Your task to perform on an android device: see tabs open on other devices in the chrome app Image 0: 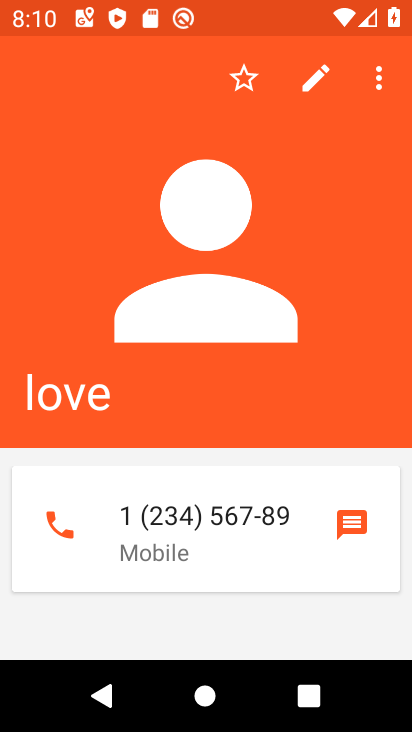
Step 0: press home button
Your task to perform on an android device: see tabs open on other devices in the chrome app Image 1: 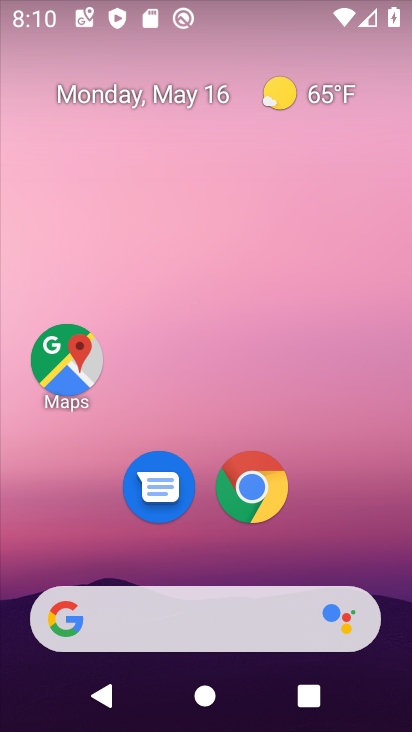
Step 1: drag from (330, 534) to (320, 89)
Your task to perform on an android device: see tabs open on other devices in the chrome app Image 2: 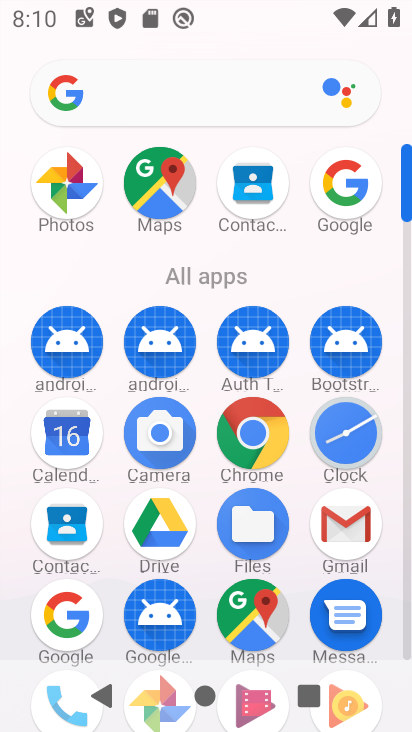
Step 2: click (256, 442)
Your task to perform on an android device: see tabs open on other devices in the chrome app Image 3: 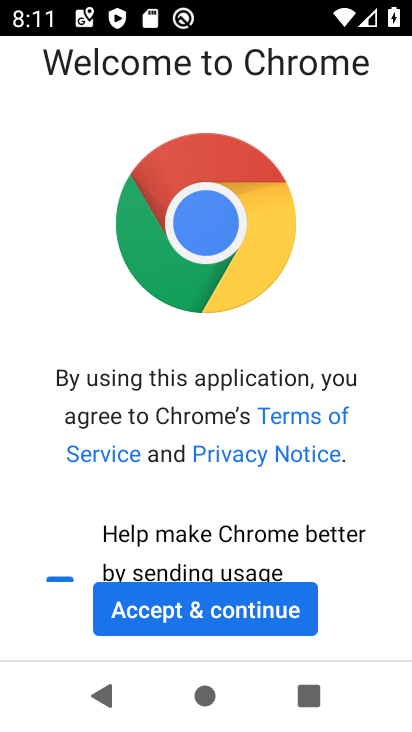
Step 3: click (190, 608)
Your task to perform on an android device: see tabs open on other devices in the chrome app Image 4: 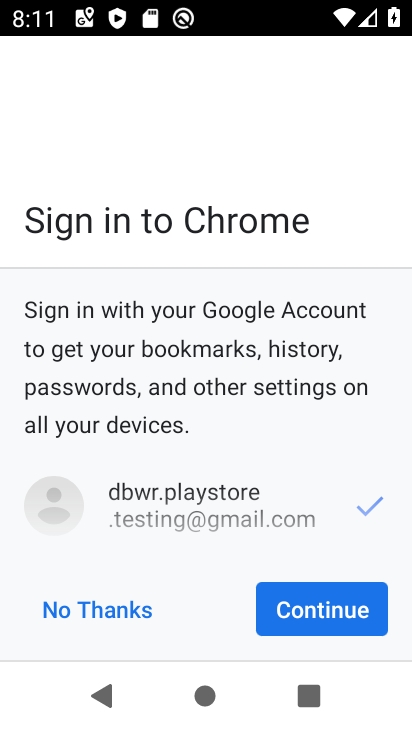
Step 4: click (270, 609)
Your task to perform on an android device: see tabs open on other devices in the chrome app Image 5: 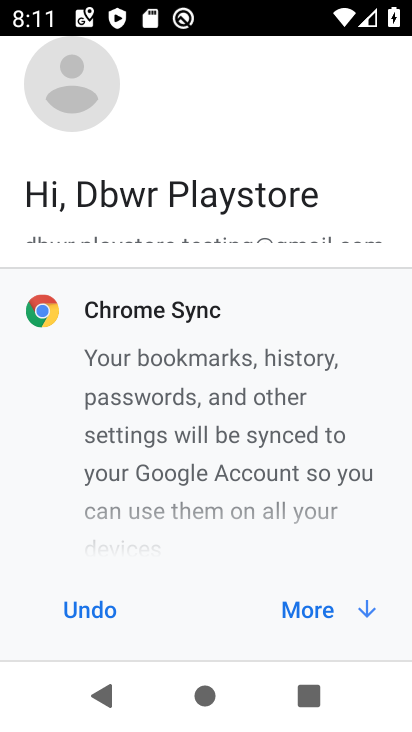
Step 5: click (296, 612)
Your task to perform on an android device: see tabs open on other devices in the chrome app Image 6: 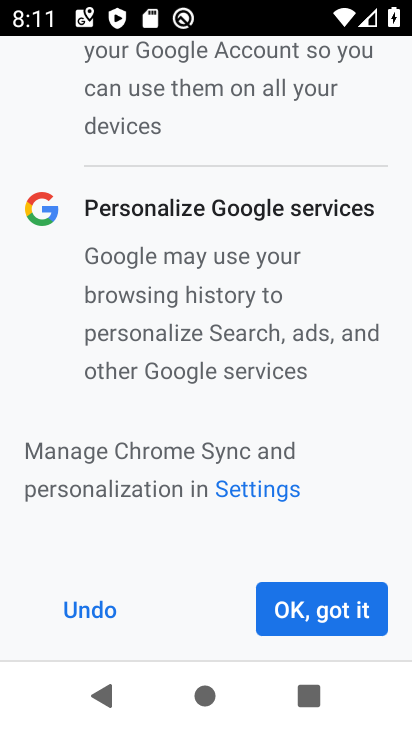
Step 6: click (296, 612)
Your task to perform on an android device: see tabs open on other devices in the chrome app Image 7: 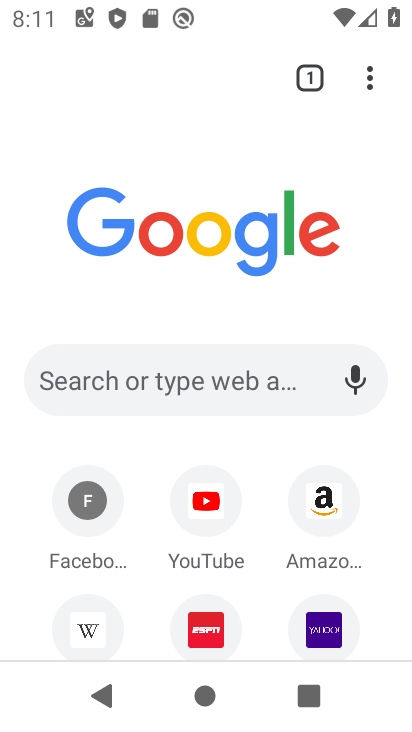
Step 7: click (370, 80)
Your task to perform on an android device: see tabs open on other devices in the chrome app Image 8: 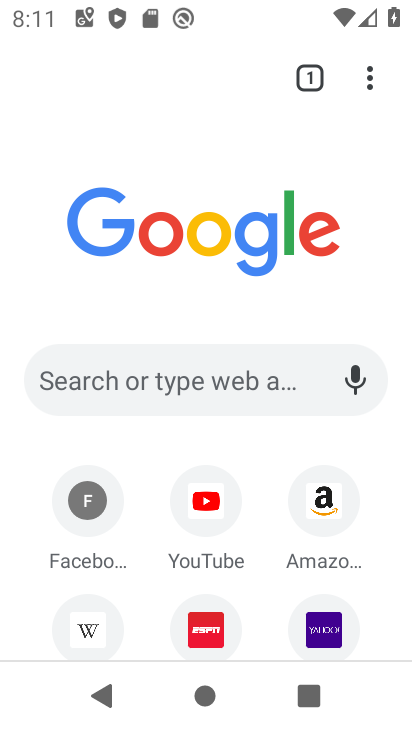
Step 8: click (370, 80)
Your task to perform on an android device: see tabs open on other devices in the chrome app Image 9: 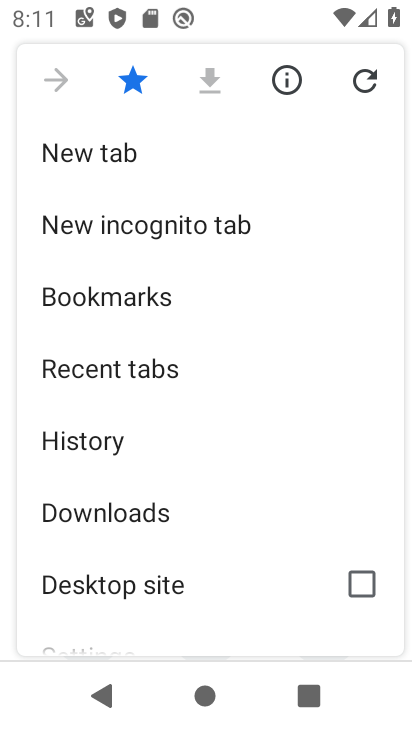
Step 9: drag from (288, 537) to (287, 413)
Your task to perform on an android device: see tabs open on other devices in the chrome app Image 10: 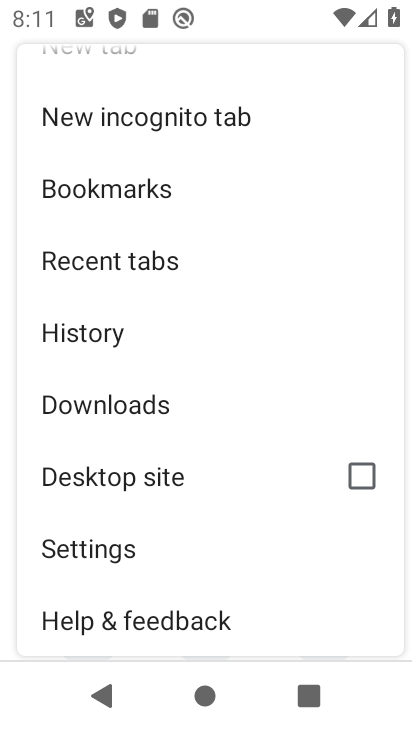
Step 10: click (173, 267)
Your task to perform on an android device: see tabs open on other devices in the chrome app Image 11: 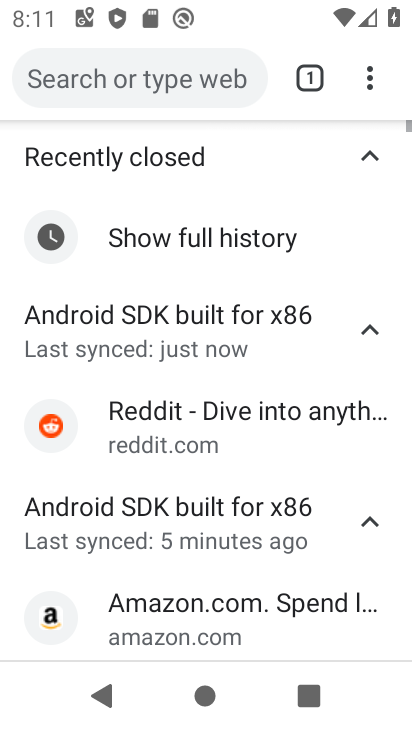
Step 11: click (309, 85)
Your task to perform on an android device: see tabs open on other devices in the chrome app Image 12: 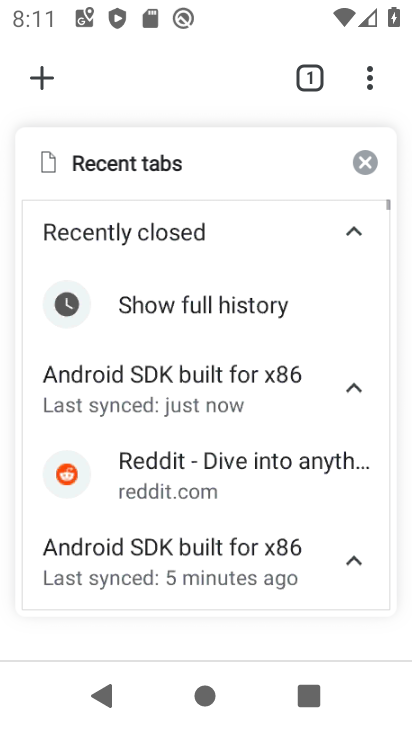
Step 12: task complete